Your task to perform on an android device: open a bookmark in the chrome app Image 0: 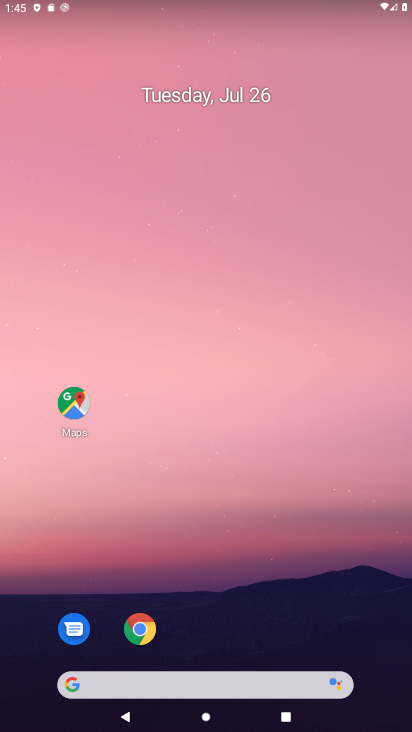
Step 0: click (138, 630)
Your task to perform on an android device: open a bookmark in the chrome app Image 1: 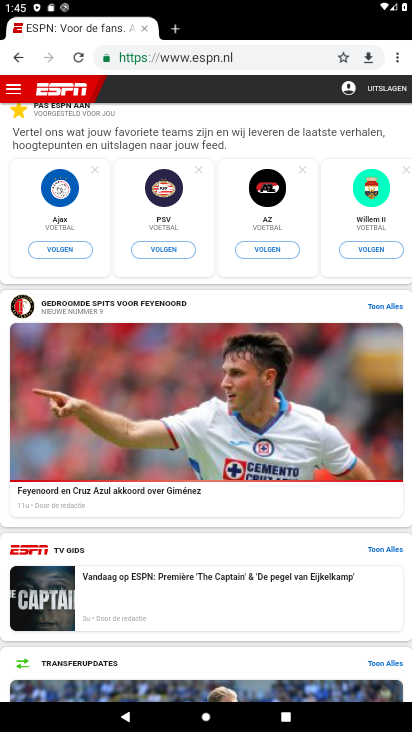
Step 1: click (396, 56)
Your task to perform on an android device: open a bookmark in the chrome app Image 2: 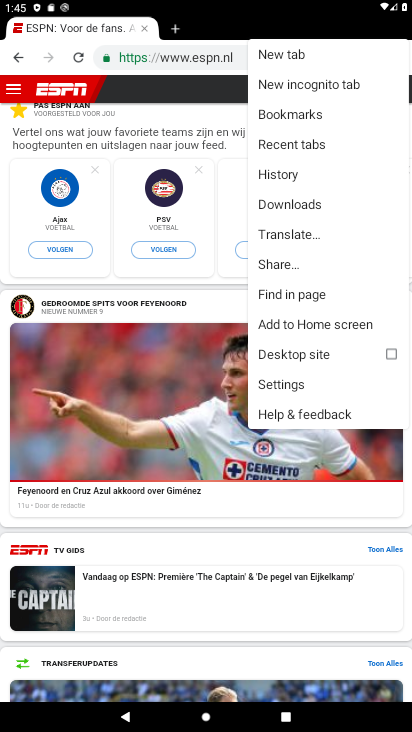
Step 2: click (278, 114)
Your task to perform on an android device: open a bookmark in the chrome app Image 3: 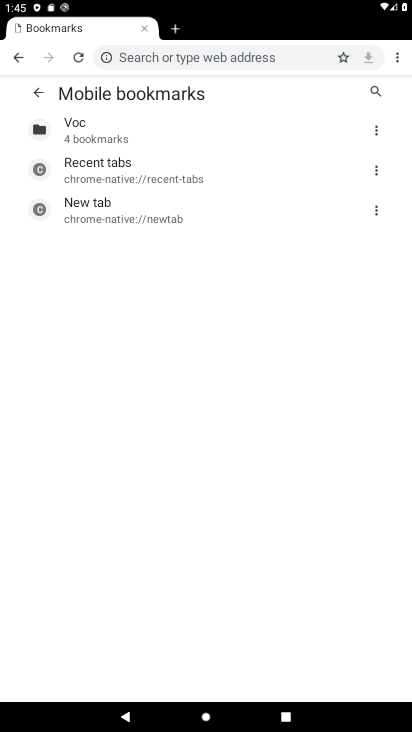
Step 3: task complete